Your task to perform on an android device: Show me popular videos on Youtube Image 0: 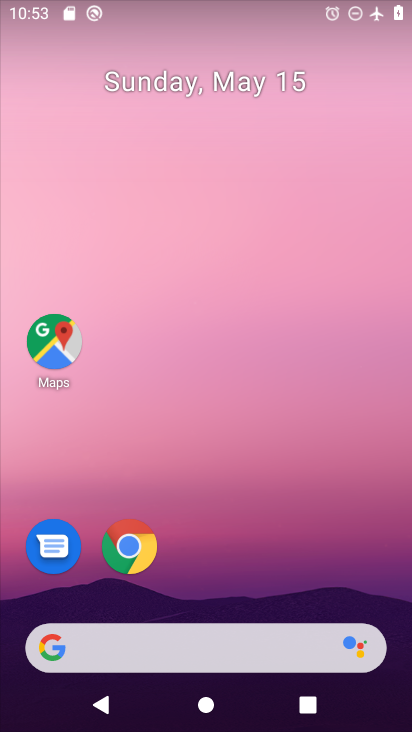
Step 0: drag from (265, 610) to (349, 92)
Your task to perform on an android device: Show me popular videos on Youtube Image 1: 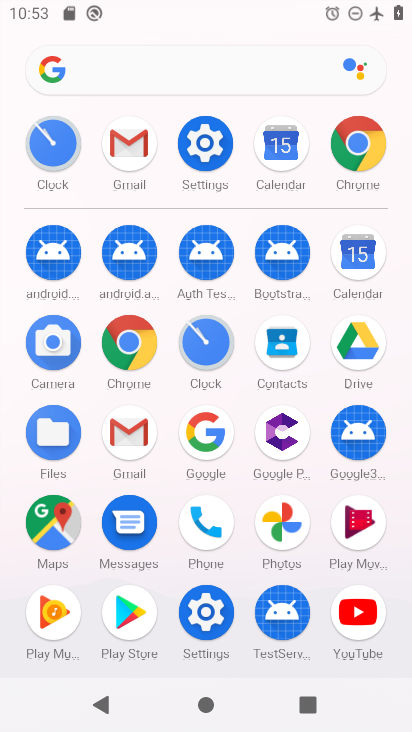
Step 1: click (359, 615)
Your task to perform on an android device: Show me popular videos on Youtube Image 2: 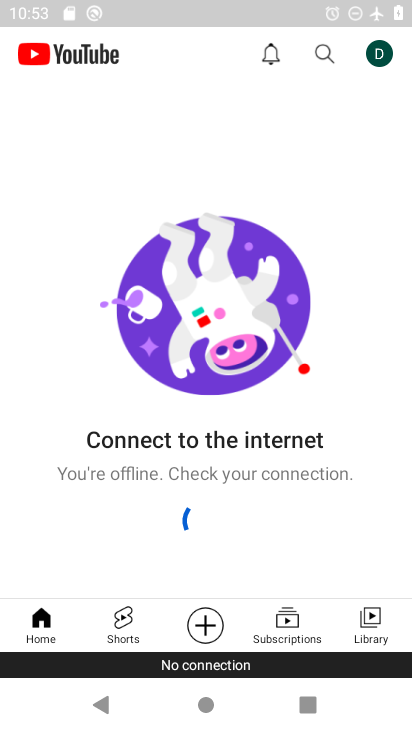
Step 2: task complete